Your task to perform on an android device: move an email to a new category in the gmail app Image 0: 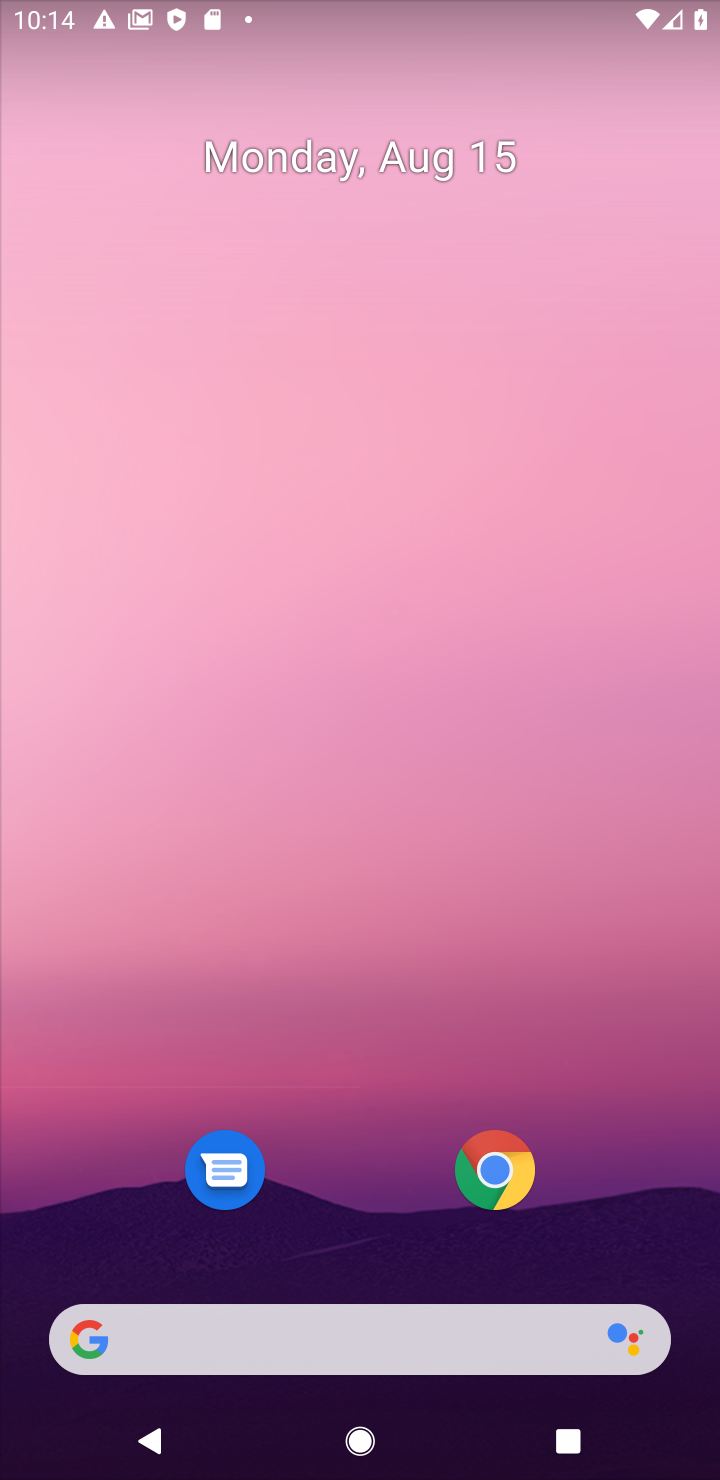
Step 0: press home button
Your task to perform on an android device: move an email to a new category in the gmail app Image 1: 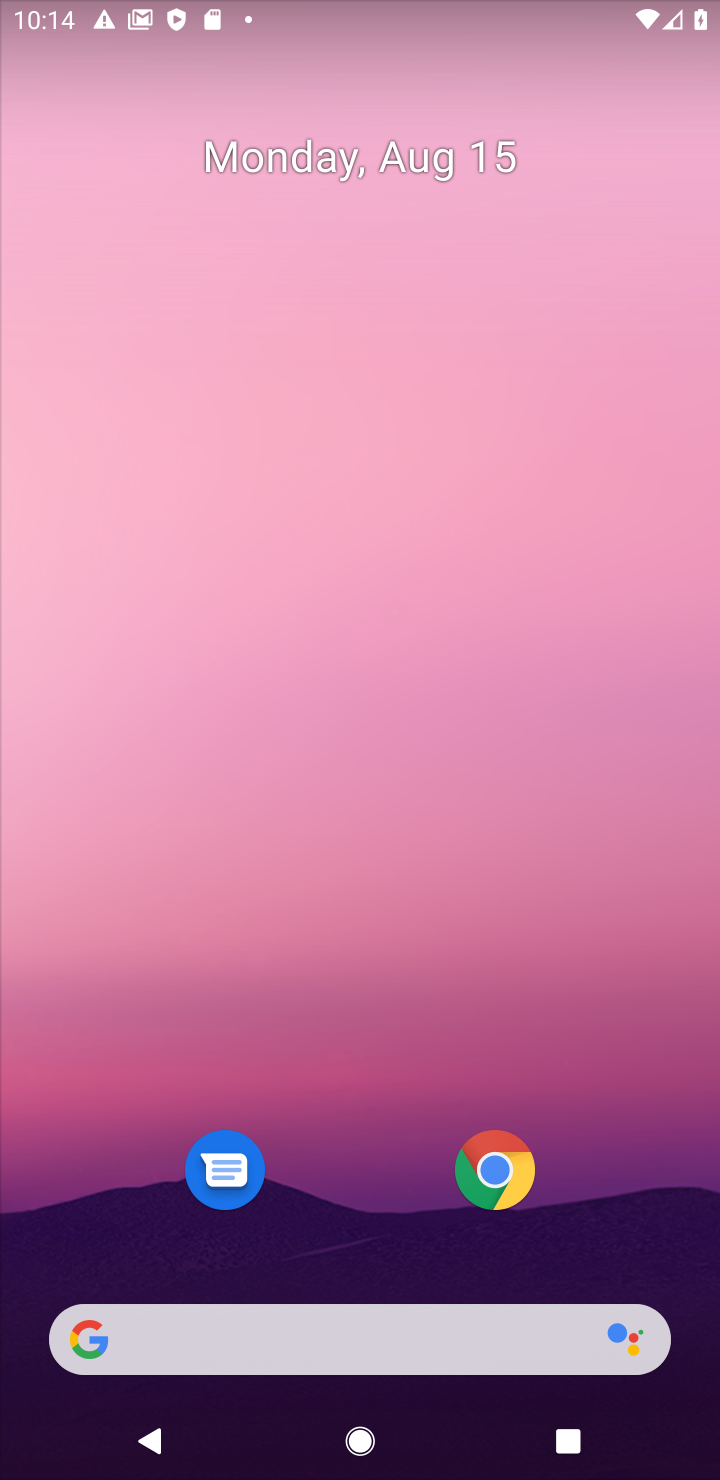
Step 1: drag from (376, 1116) to (390, 9)
Your task to perform on an android device: move an email to a new category in the gmail app Image 2: 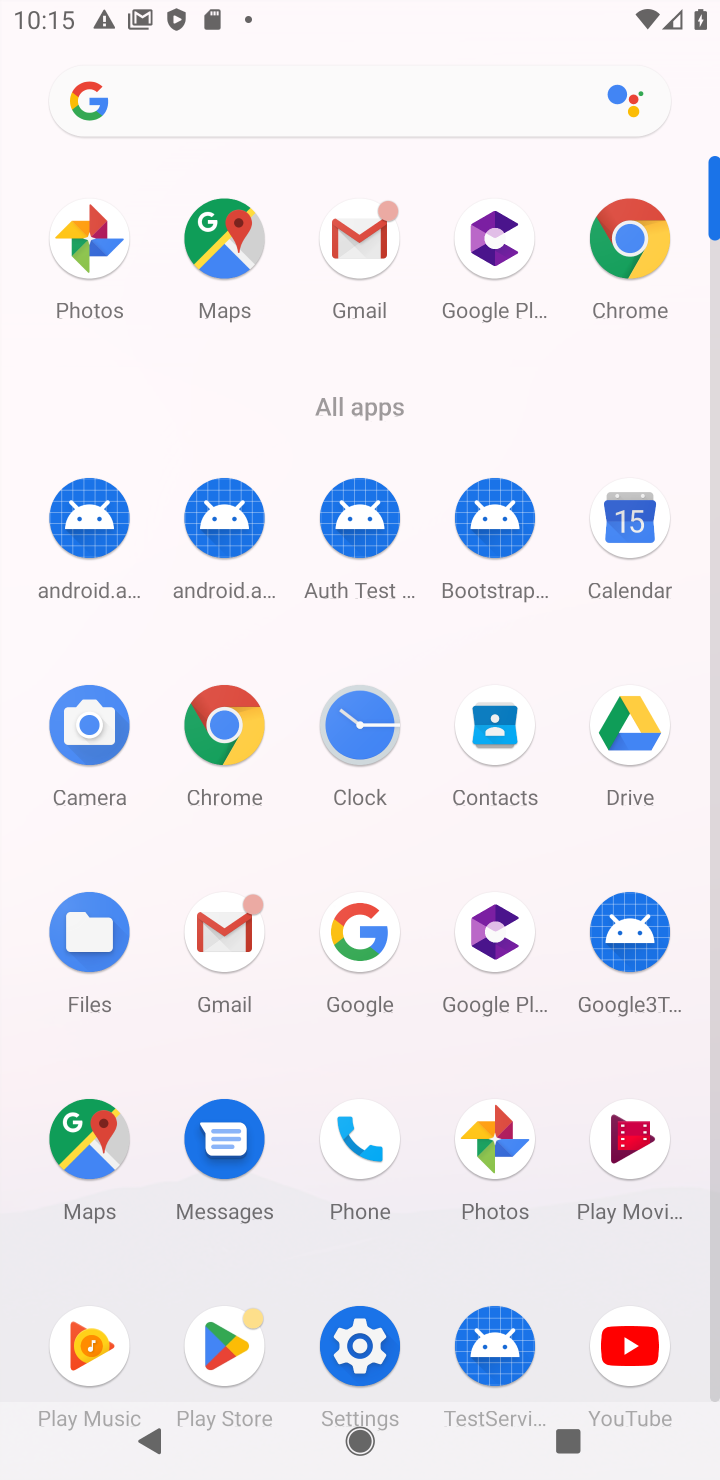
Step 2: click (211, 917)
Your task to perform on an android device: move an email to a new category in the gmail app Image 3: 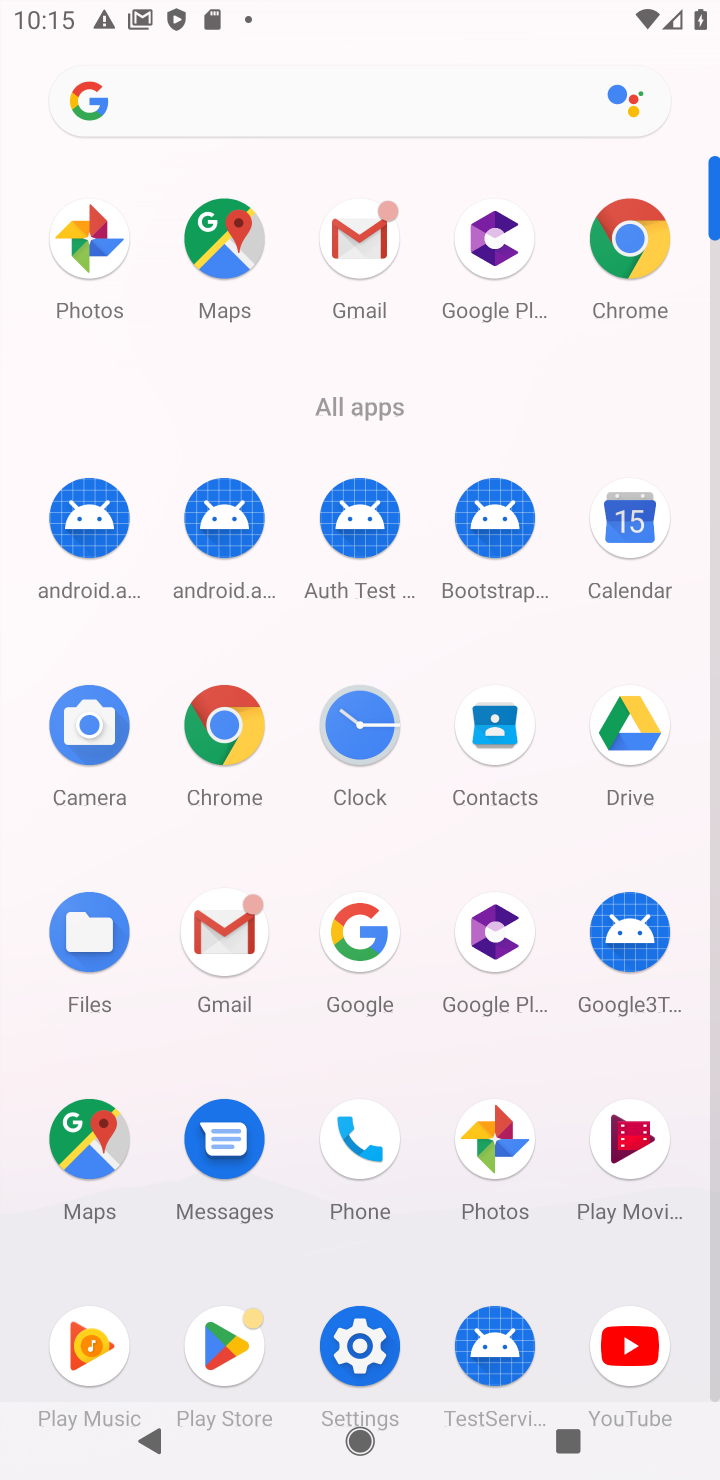
Step 3: click (226, 912)
Your task to perform on an android device: move an email to a new category in the gmail app Image 4: 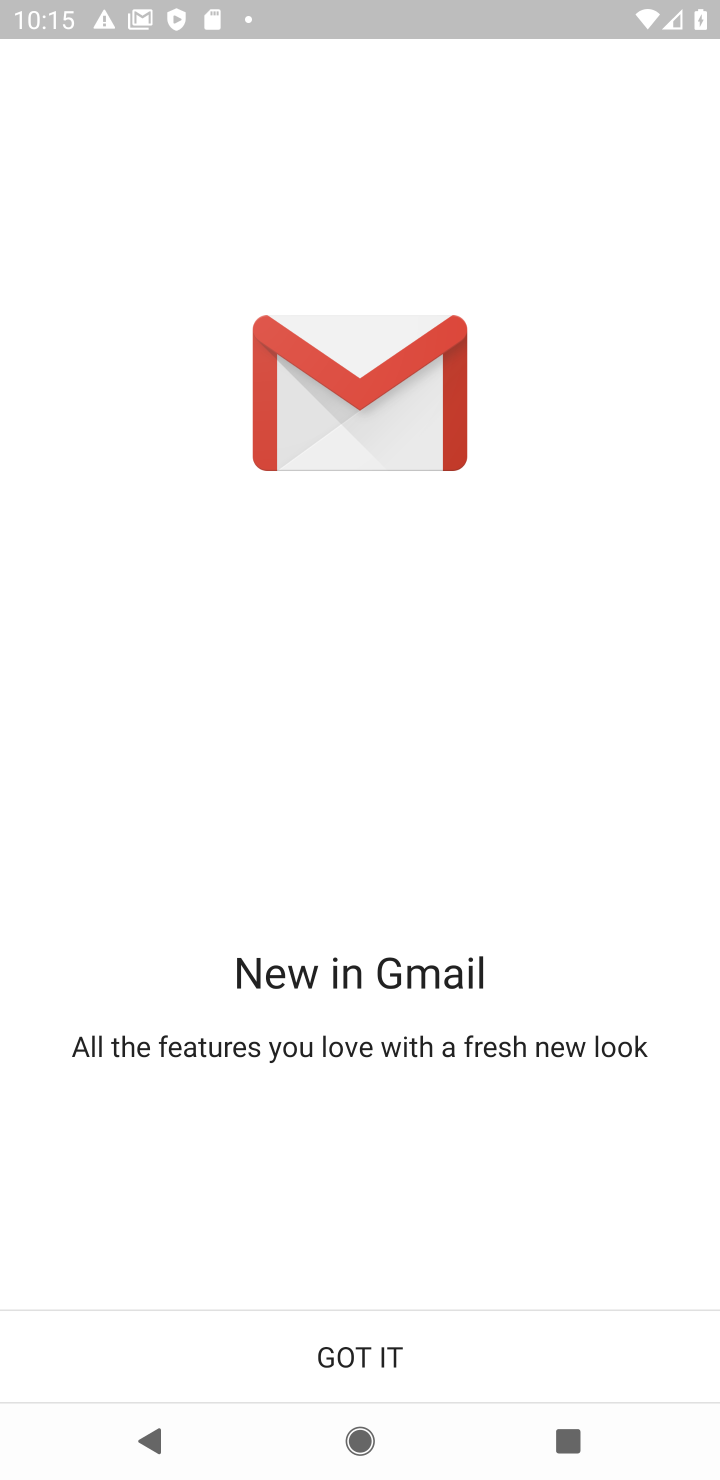
Step 4: click (229, 914)
Your task to perform on an android device: move an email to a new category in the gmail app Image 5: 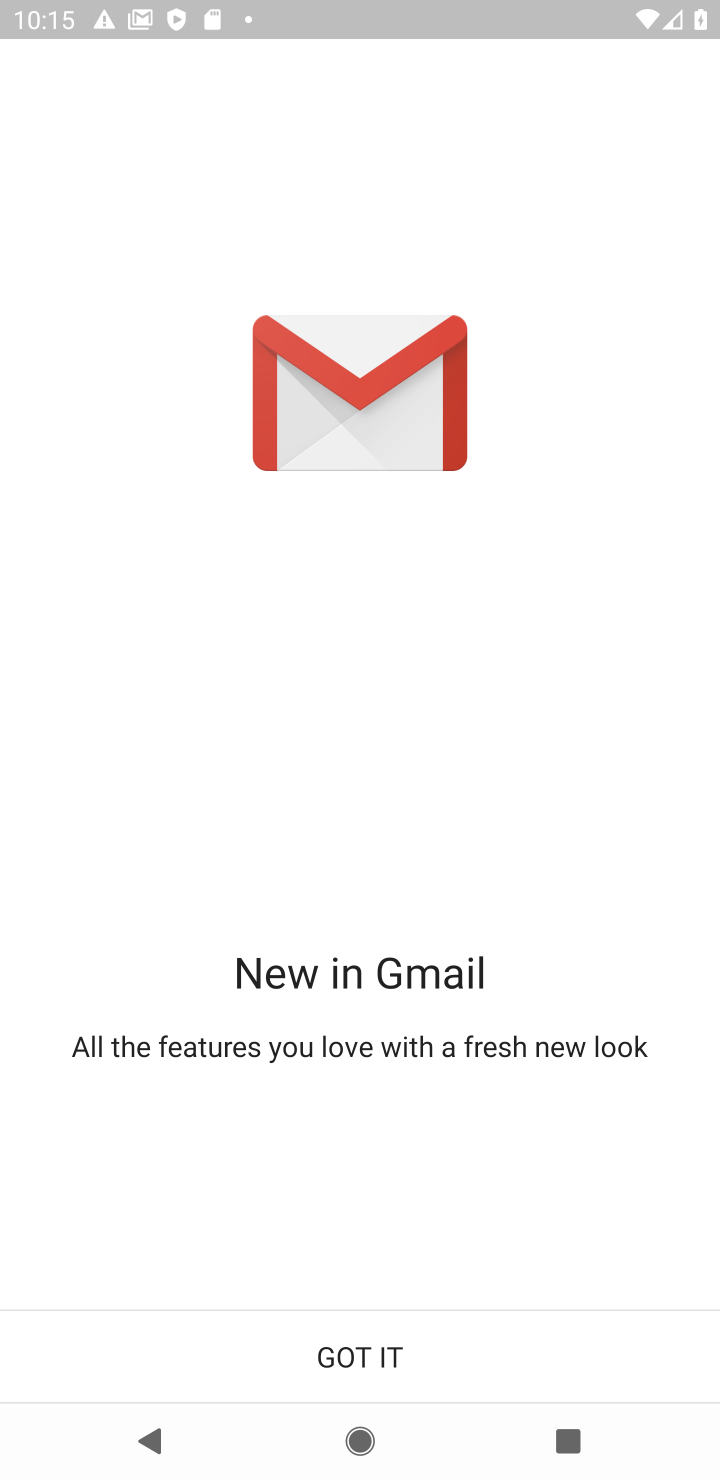
Step 5: click (370, 1339)
Your task to perform on an android device: move an email to a new category in the gmail app Image 6: 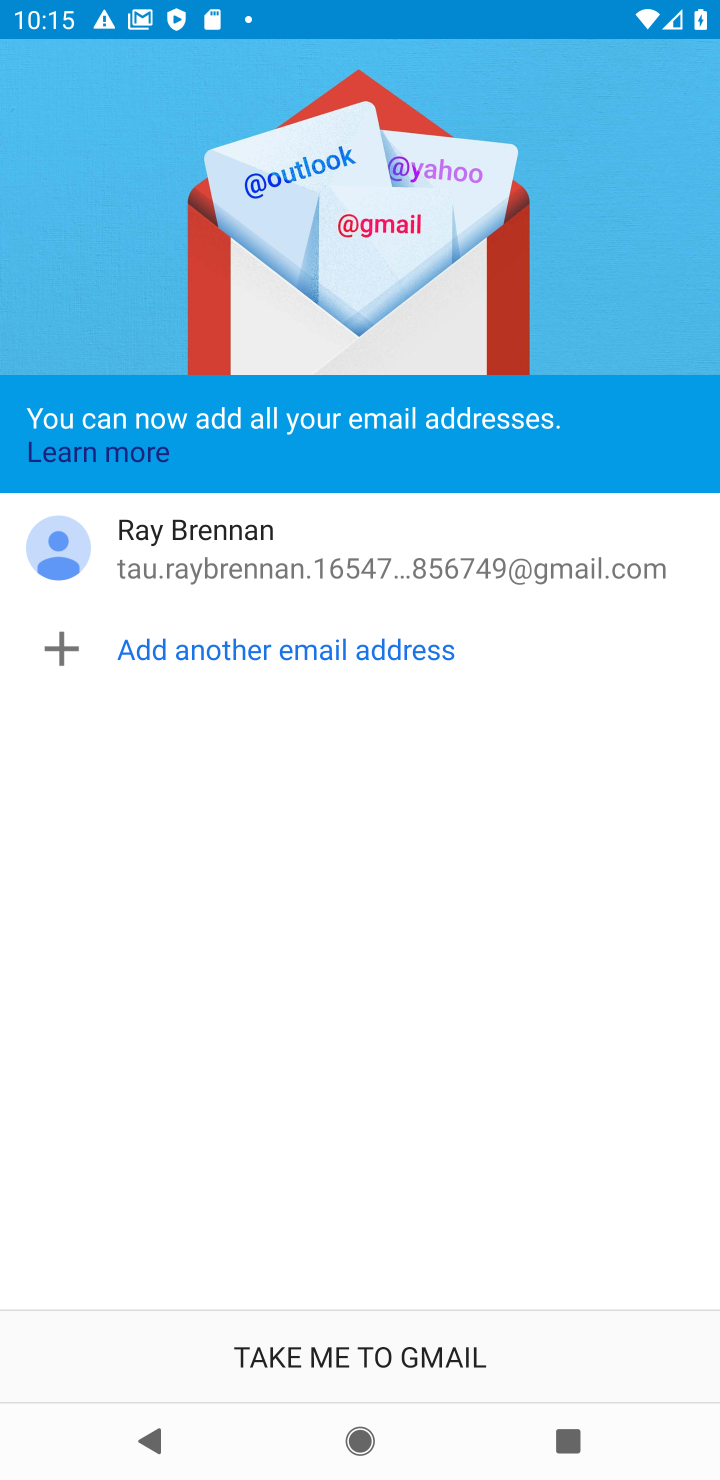
Step 6: click (358, 1348)
Your task to perform on an android device: move an email to a new category in the gmail app Image 7: 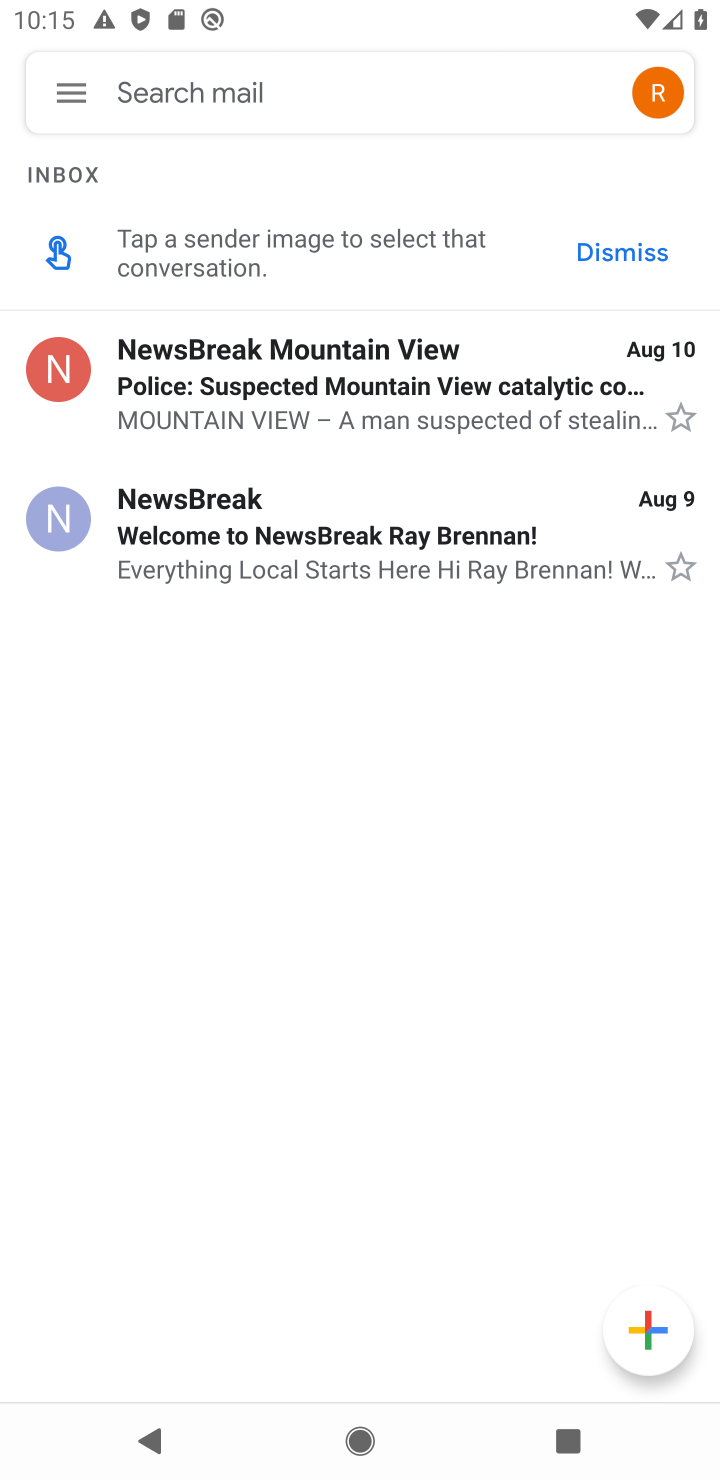
Step 7: click (59, 359)
Your task to perform on an android device: move an email to a new category in the gmail app Image 8: 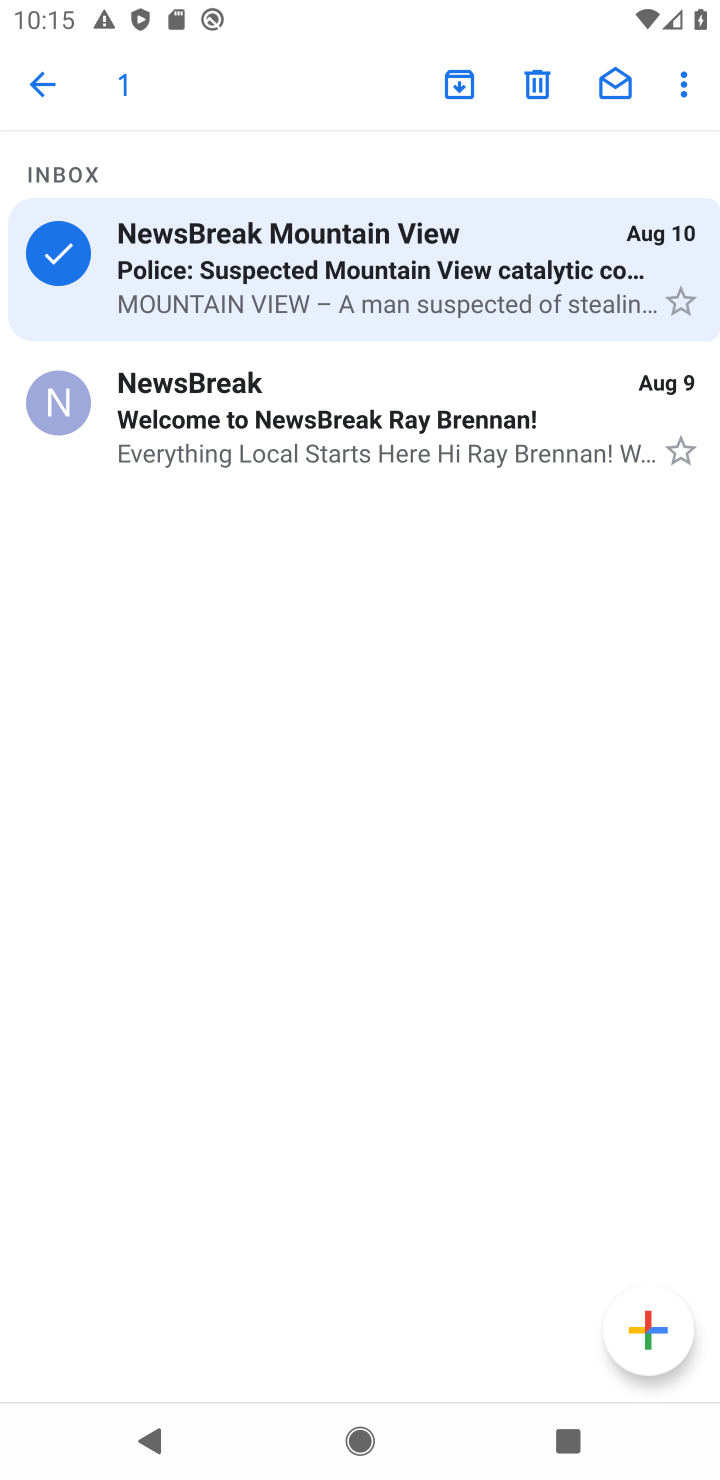
Step 8: click (683, 83)
Your task to perform on an android device: move an email to a new category in the gmail app Image 9: 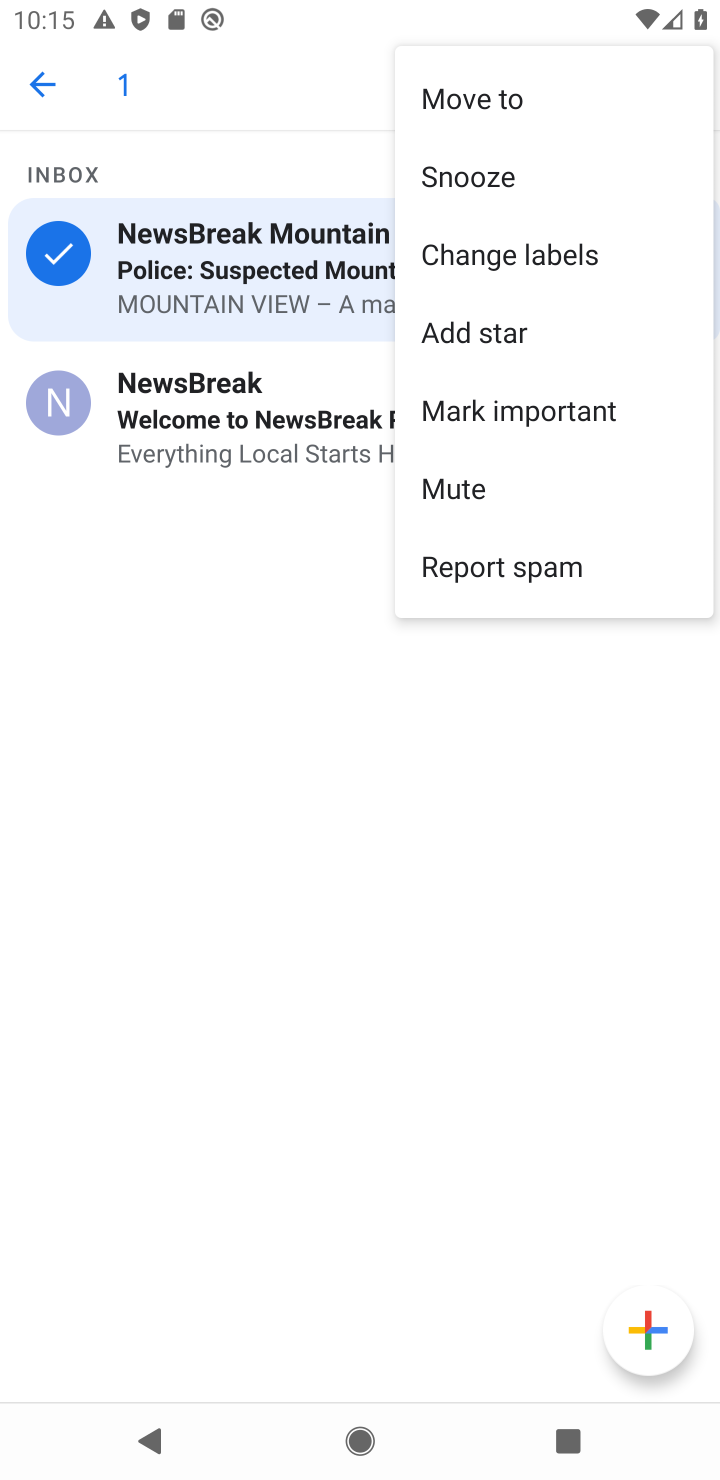
Step 9: click (517, 97)
Your task to perform on an android device: move an email to a new category in the gmail app Image 10: 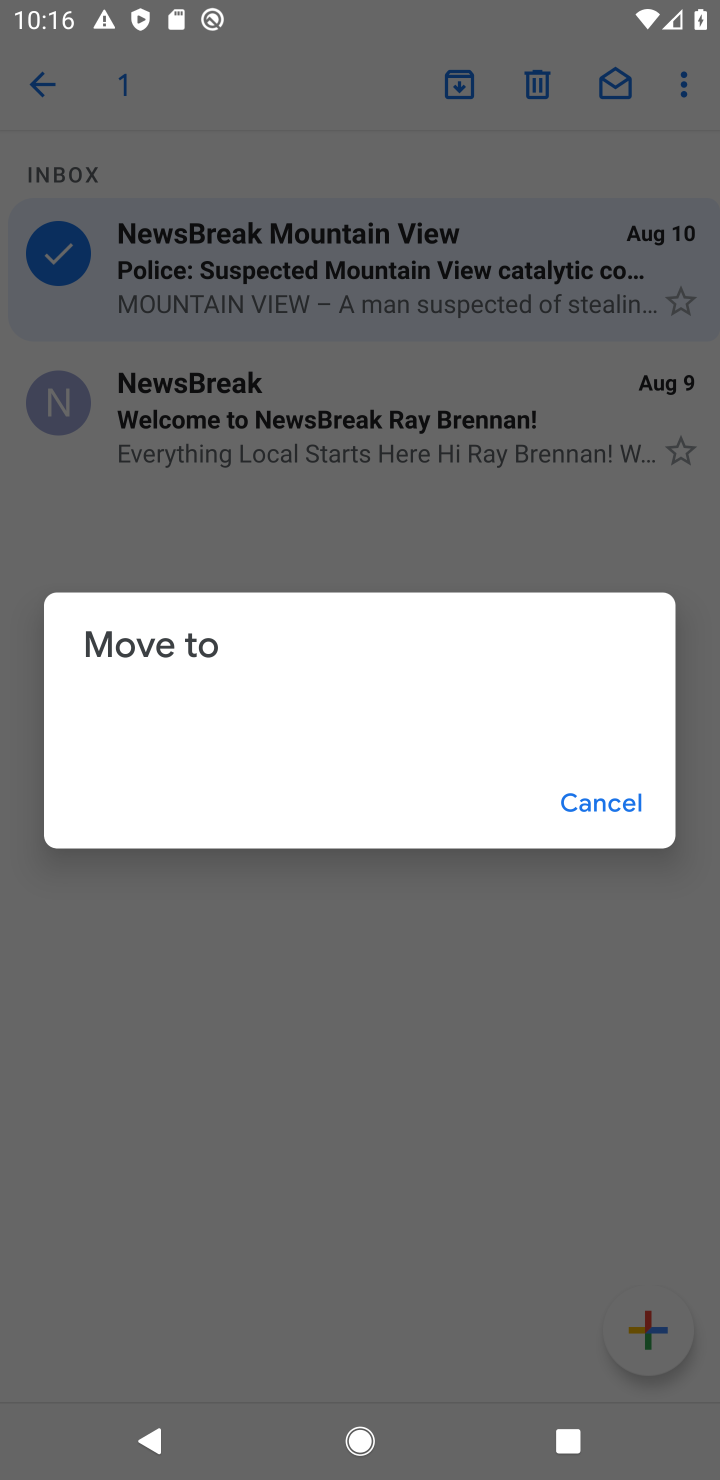
Step 10: task complete